Your task to perform on an android device: turn smart compose on in the gmail app Image 0: 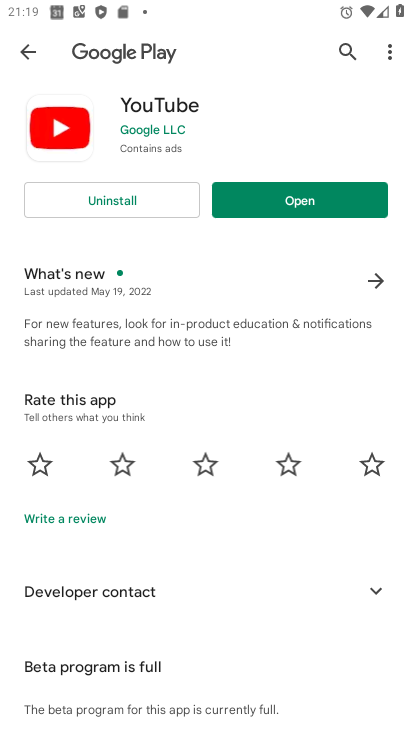
Step 0: press home button
Your task to perform on an android device: turn smart compose on in the gmail app Image 1: 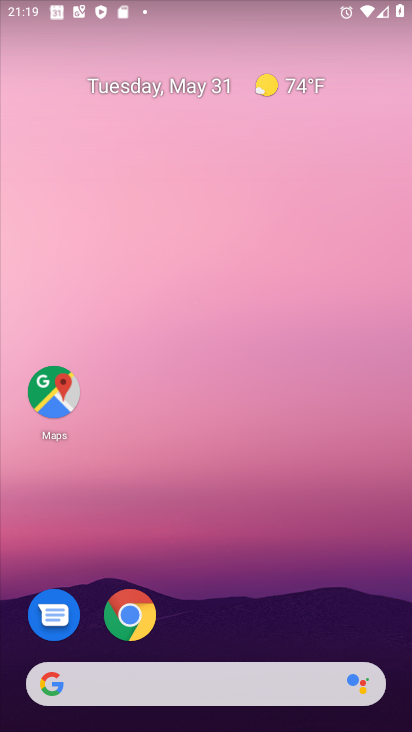
Step 1: drag from (218, 620) to (220, 364)
Your task to perform on an android device: turn smart compose on in the gmail app Image 2: 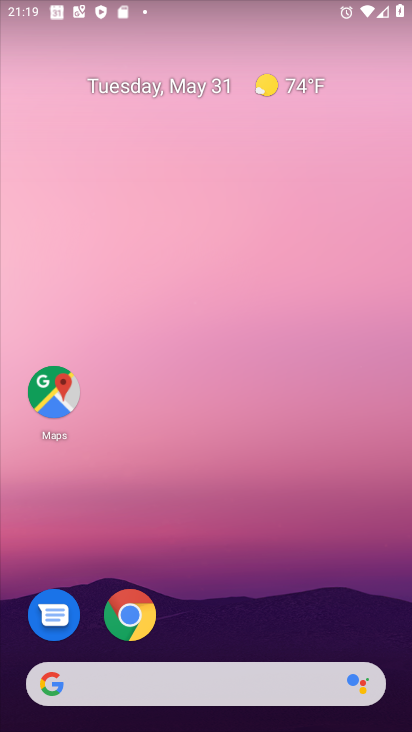
Step 2: drag from (221, 638) to (216, 172)
Your task to perform on an android device: turn smart compose on in the gmail app Image 3: 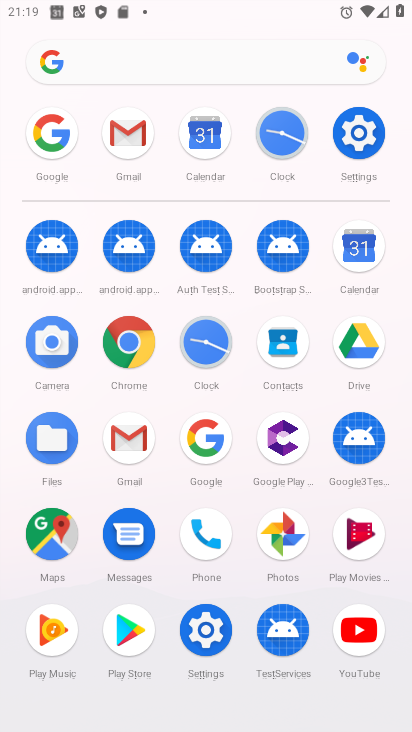
Step 3: click (115, 140)
Your task to perform on an android device: turn smart compose on in the gmail app Image 4: 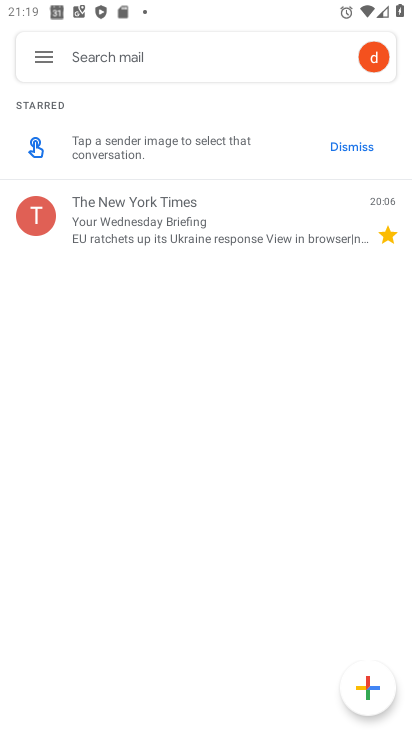
Step 4: click (50, 43)
Your task to perform on an android device: turn smart compose on in the gmail app Image 5: 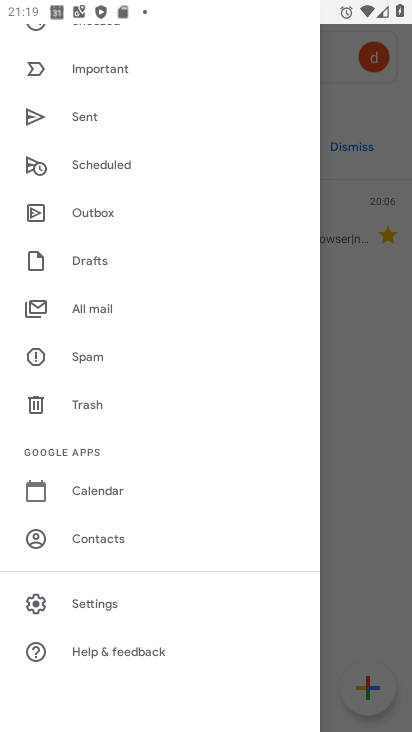
Step 5: click (118, 611)
Your task to perform on an android device: turn smart compose on in the gmail app Image 6: 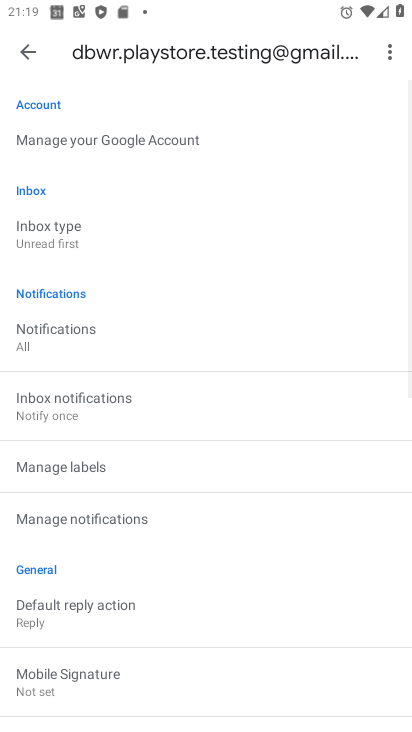
Step 6: task complete